Your task to perform on an android device: Open the calendar app, open the side menu, and click the "Day" option Image 0: 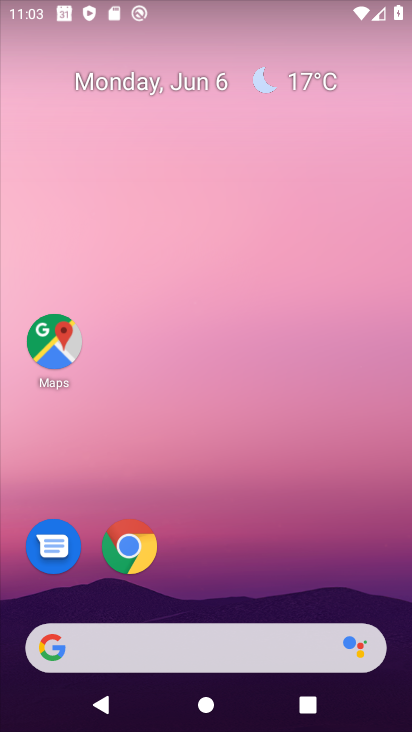
Step 0: drag from (290, 535) to (254, 162)
Your task to perform on an android device: Open the calendar app, open the side menu, and click the "Day" option Image 1: 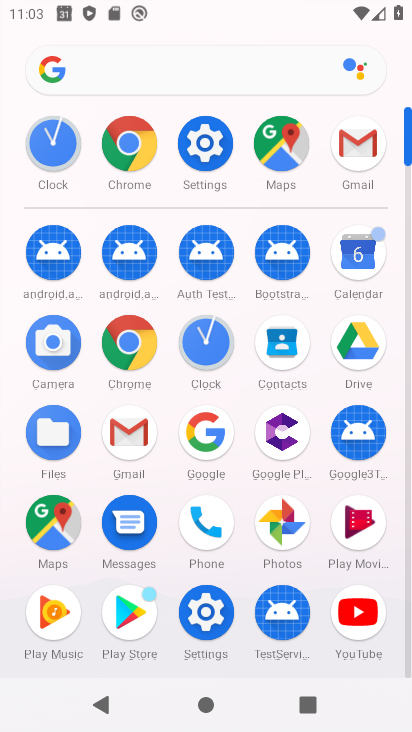
Step 1: click (368, 254)
Your task to perform on an android device: Open the calendar app, open the side menu, and click the "Day" option Image 2: 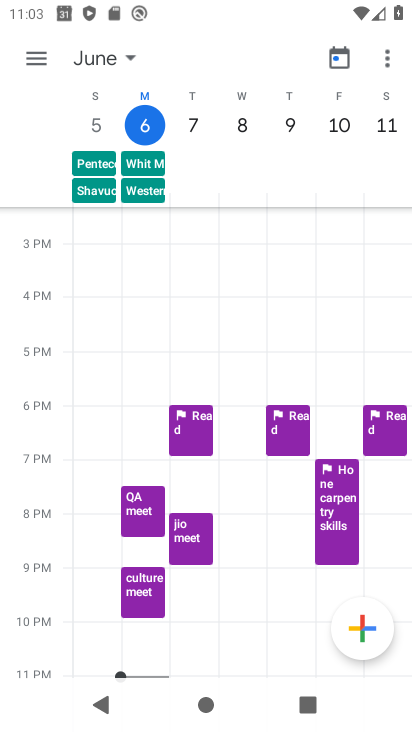
Step 2: click (31, 67)
Your task to perform on an android device: Open the calendar app, open the side menu, and click the "Day" option Image 3: 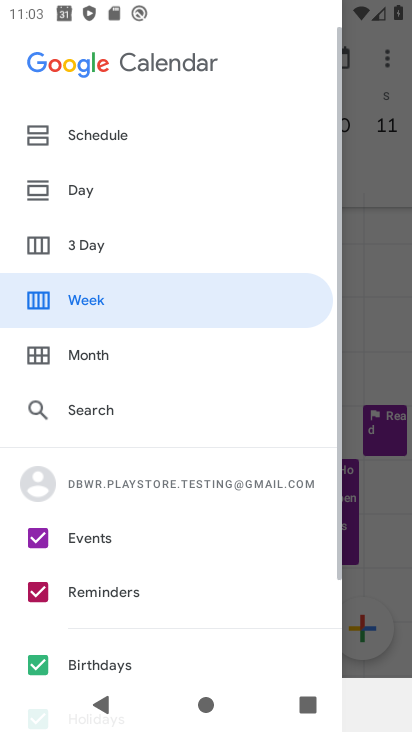
Step 3: click (97, 189)
Your task to perform on an android device: Open the calendar app, open the side menu, and click the "Day" option Image 4: 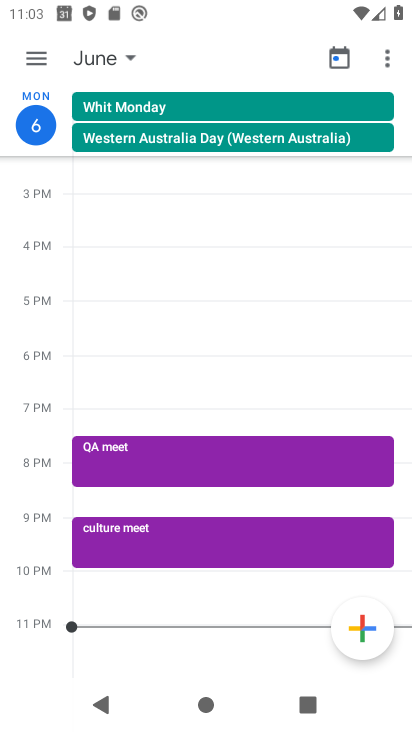
Step 4: task complete